Your task to perform on an android device: turn off notifications in google photos Image 0: 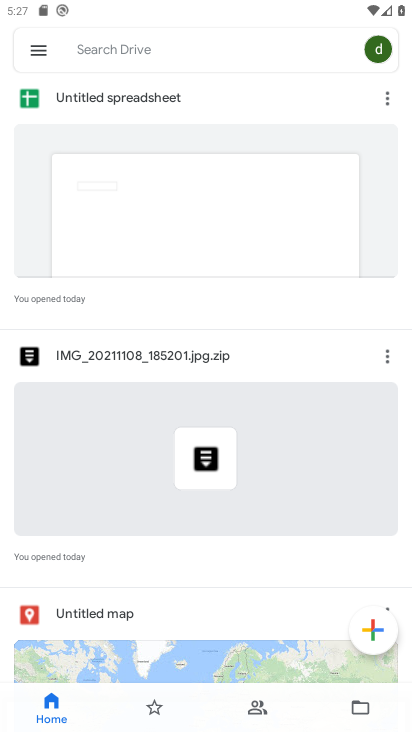
Step 0: press home button
Your task to perform on an android device: turn off notifications in google photos Image 1: 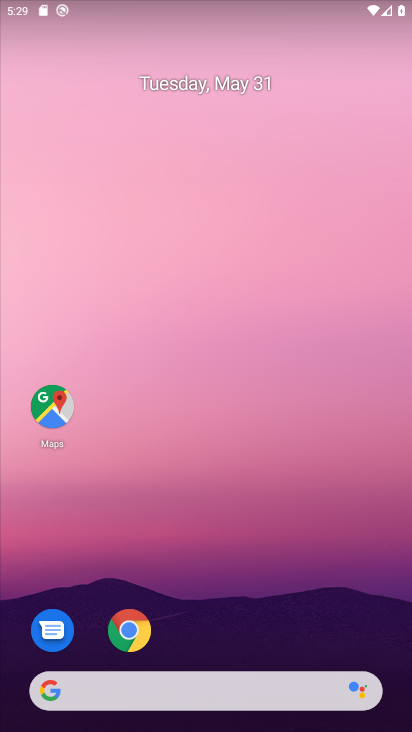
Step 1: drag from (253, 601) to (253, 230)
Your task to perform on an android device: turn off notifications in google photos Image 2: 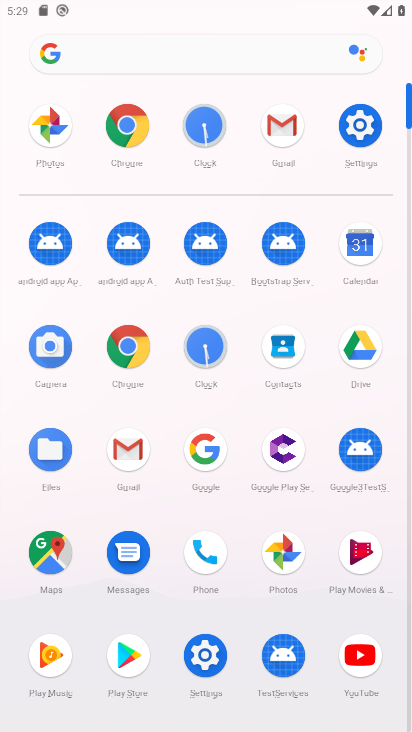
Step 2: click (278, 554)
Your task to perform on an android device: turn off notifications in google photos Image 3: 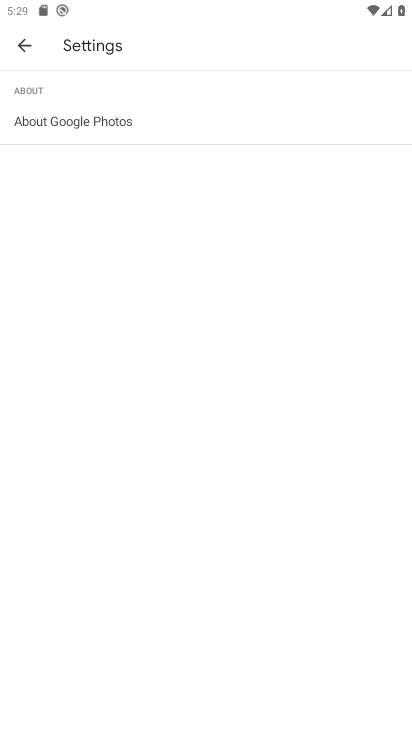
Step 3: click (9, 38)
Your task to perform on an android device: turn off notifications in google photos Image 4: 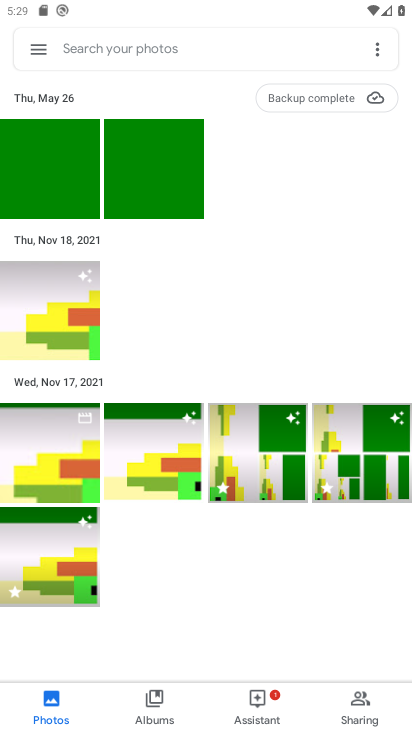
Step 4: click (43, 49)
Your task to perform on an android device: turn off notifications in google photos Image 5: 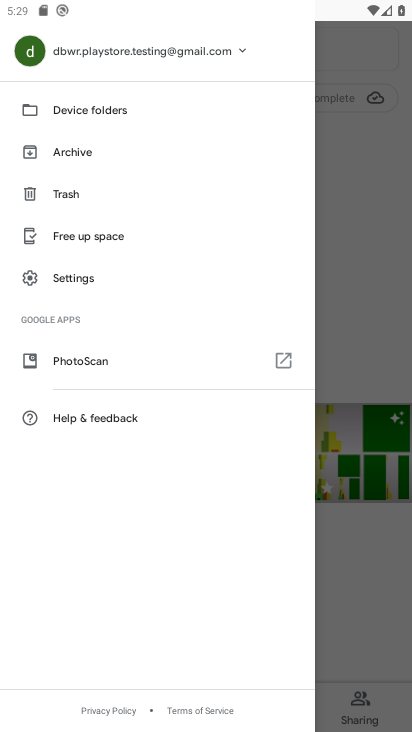
Step 5: click (75, 276)
Your task to perform on an android device: turn off notifications in google photos Image 6: 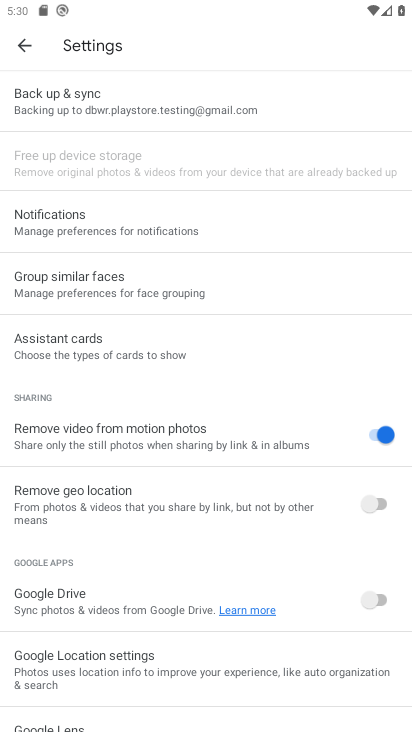
Step 6: click (129, 219)
Your task to perform on an android device: turn off notifications in google photos Image 7: 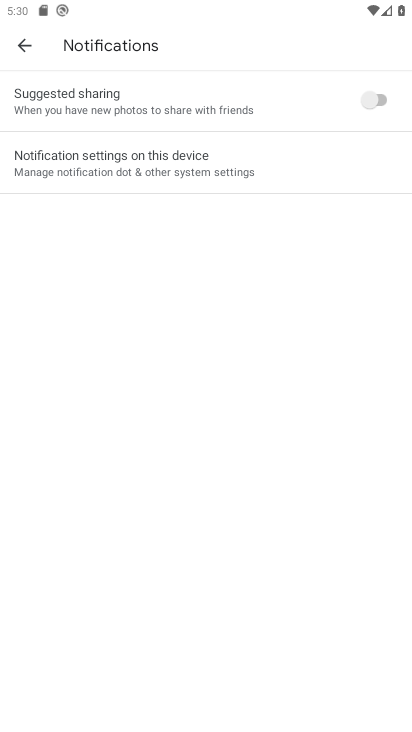
Step 7: task complete